Your task to perform on an android device: What's on my calendar tomorrow? Image 0: 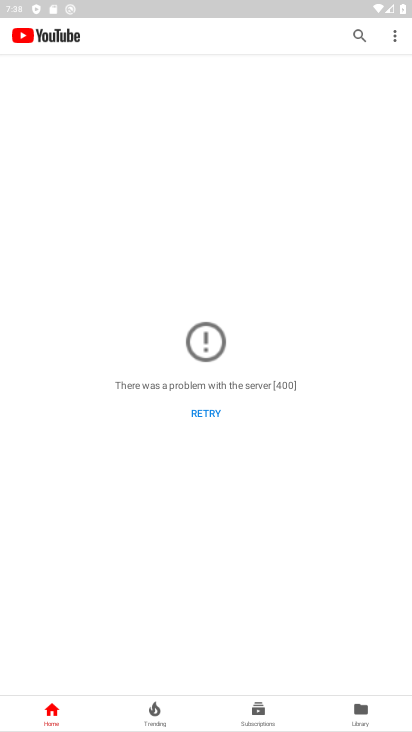
Step 0: press home button
Your task to perform on an android device: What's on my calendar tomorrow? Image 1: 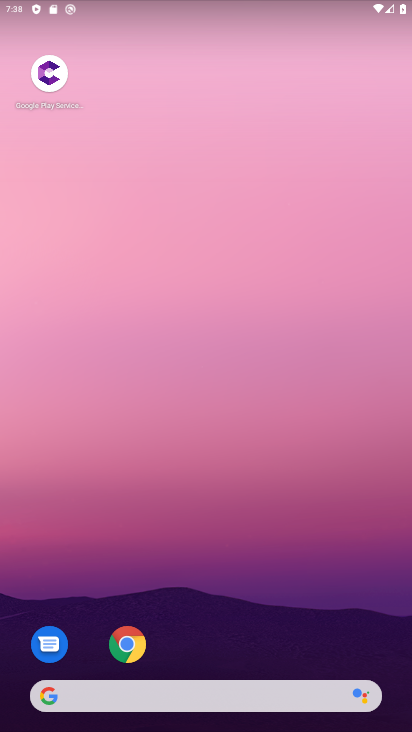
Step 1: drag from (245, 583) to (336, 61)
Your task to perform on an android device: What's on my calendar tomorrow? Image 2: 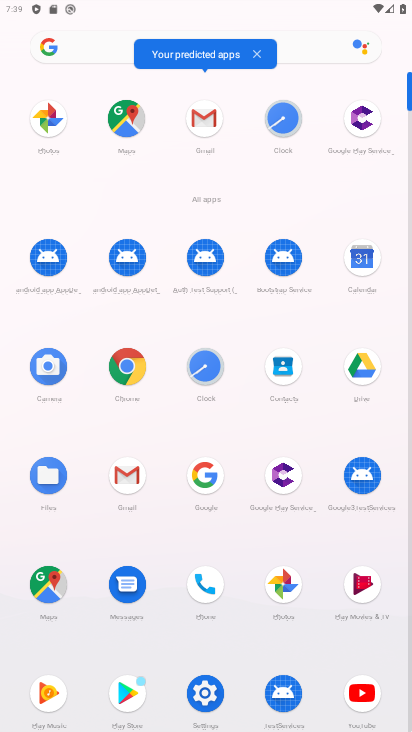
Step 2: click (370, 275)
Your task to perform on an android device: What's on my calendar tomorrow? Image 3: 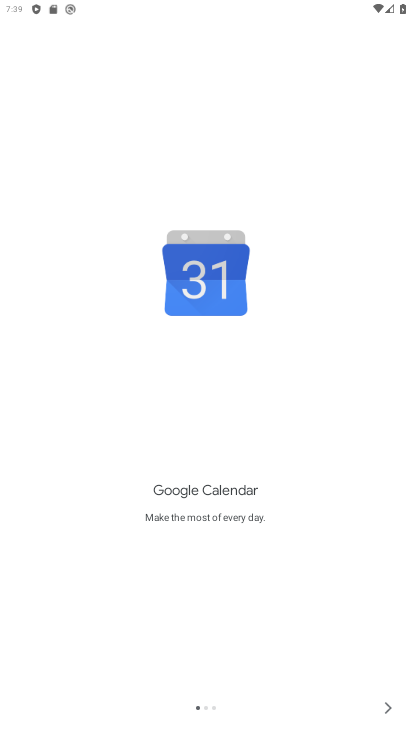
Step 3: click (386, 707)
Your task to perform on an android device: What's on my calendar tomorrow? Image 4: 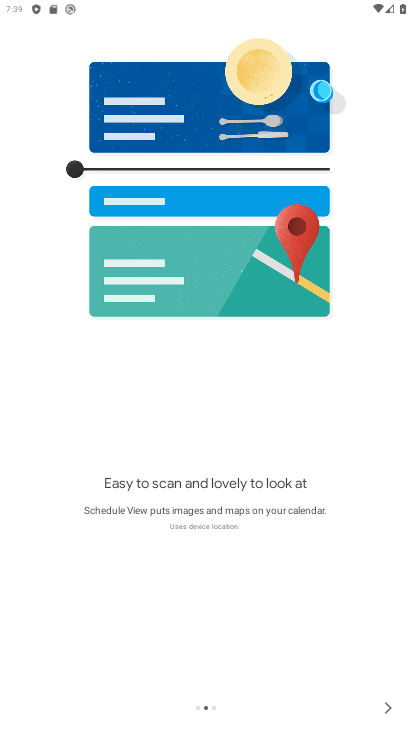
Step 4: click (386, 707)
Your task to perform on an android device: What's on my calendar tomorrow? Image 5: 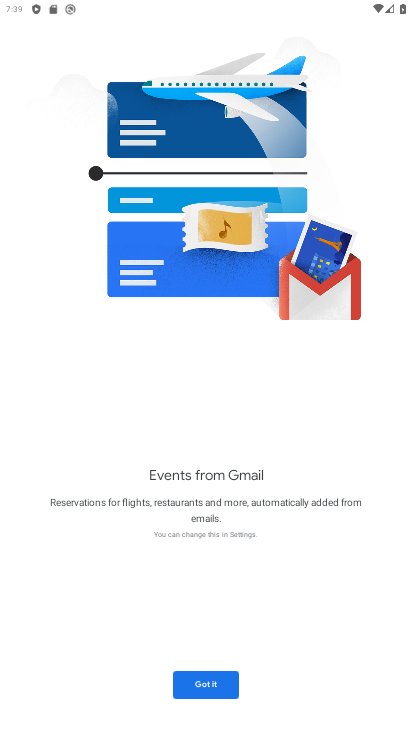
Step 5: click (219, 693)
Your task to perform on an android device: What's on my calendar tomorrow? Image 6: 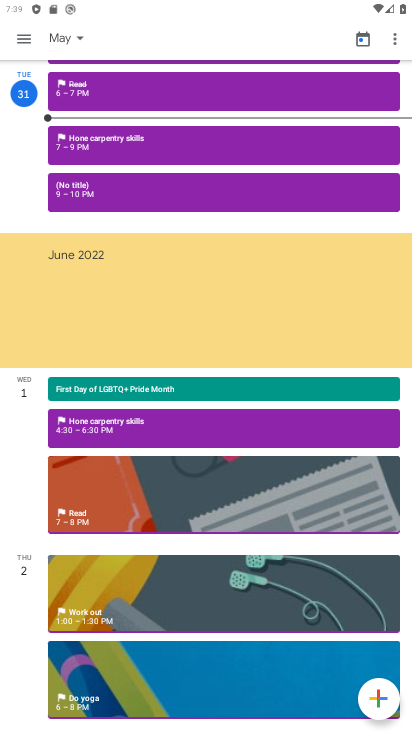
Step 6: click (55, 37)
Your task to perform on an android device: What's on my calendar tomorrow? Image 7: 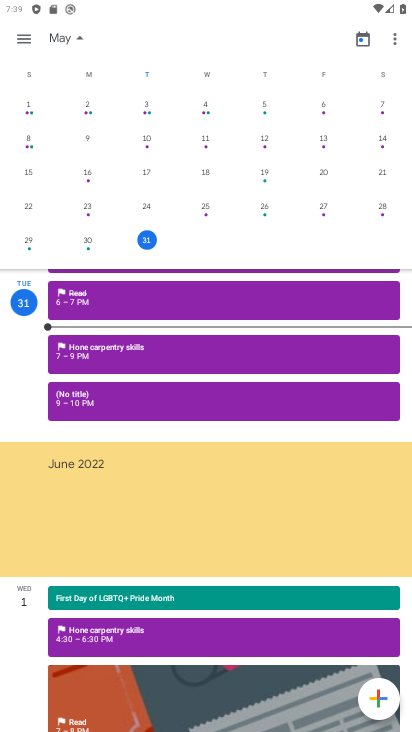
Step 7: task complete